Your task to perform on an android device: Open Yahoo.com Image 0: 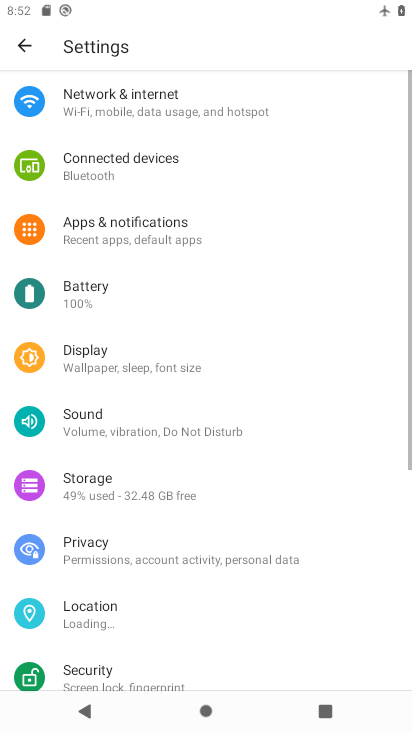
Step 0: press home button
Your task to perform on an android device: Open Yahoo.com Image 1: 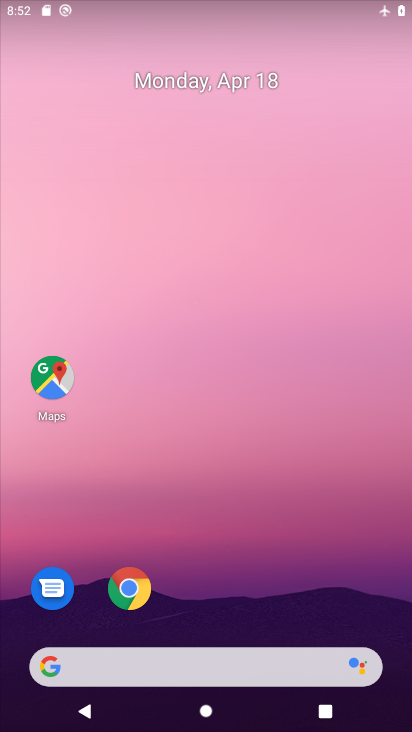
Step 1: drag from (246, 535) to (240, 103)
Your task to perform on an android device: Open Yahoo.com Image 2: 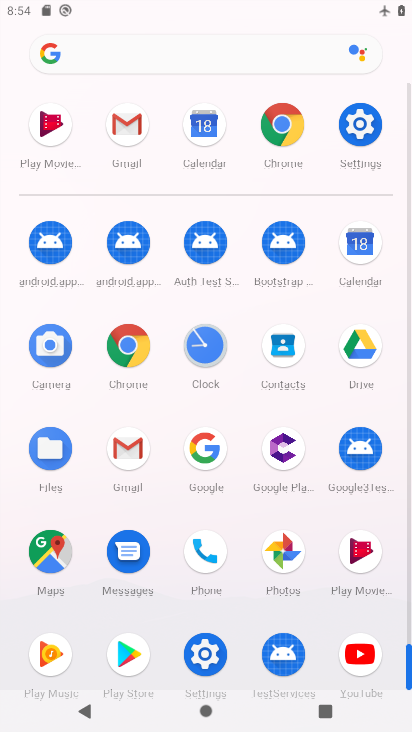
Step 2: click (289, 127)
Your task to perform on an android device: Open Yahoo.com Image 3: 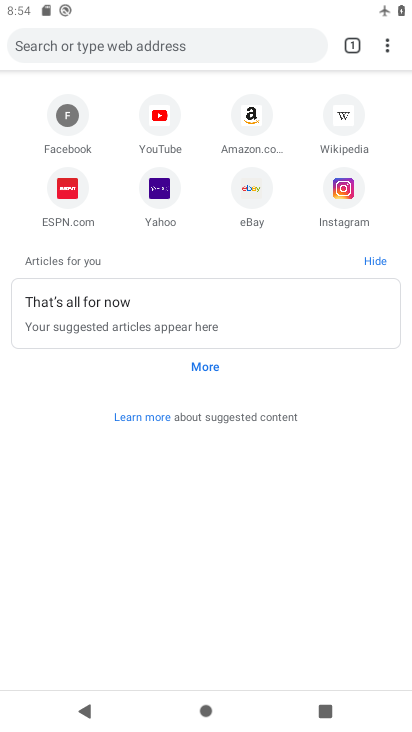
Step 3: click (159, 192)
Your task to perform on an android device: Open Yahoo.com Image 4: 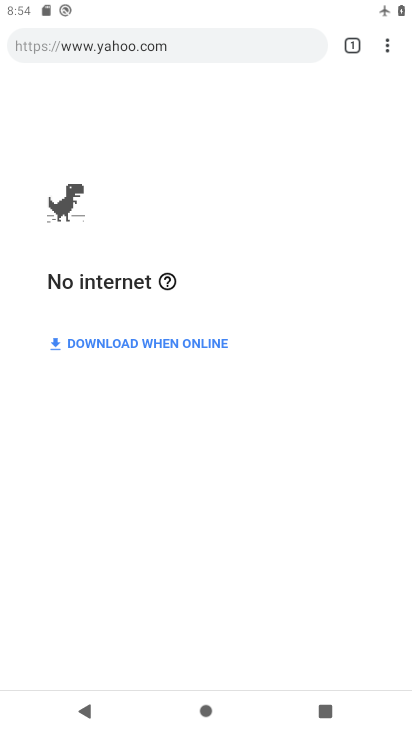
Step 4: task complete